Your task to perform on an android device: Open Yahoo.com Image 0: 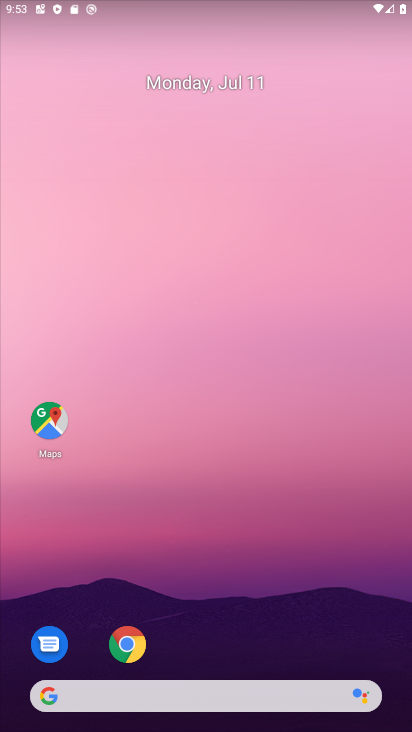
Step 0: press home button
Your task to perform on an android device: Open Yahoo.com Image 1: 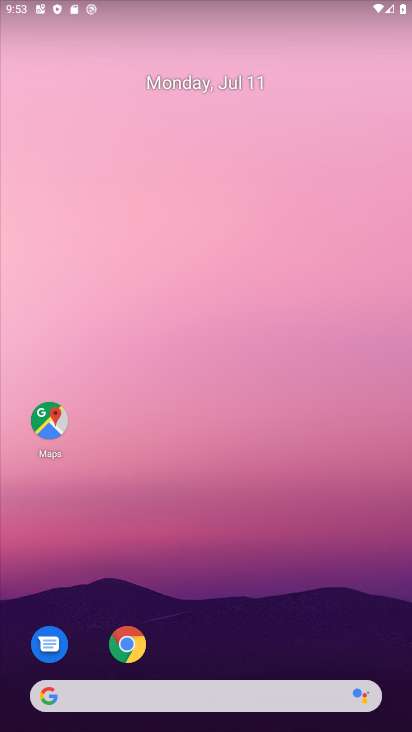
Step 1: click (123, 636)
Your task to perform on an android device: Open Yahoo.com Image 2: 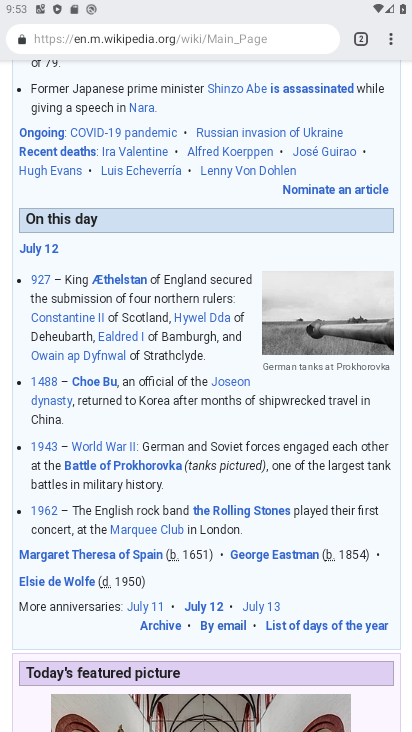
Step 2: click (358, 37)
Your task to perform on an android device: Open Yahoo.com Image 3: 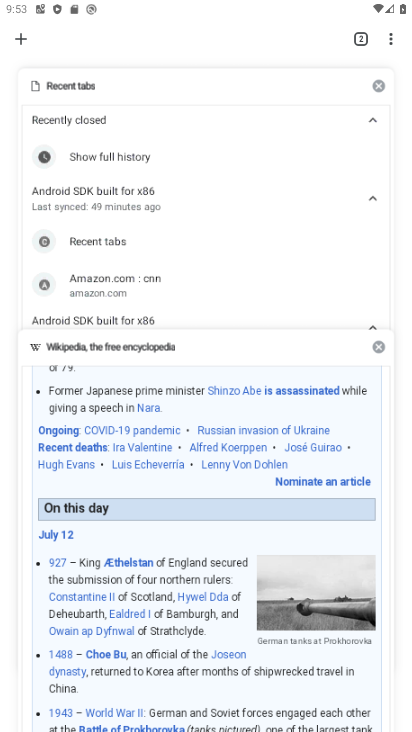
Step 3: click (381, 81)
Your task to perform on an android device: Open Yahoo.com Image 4: 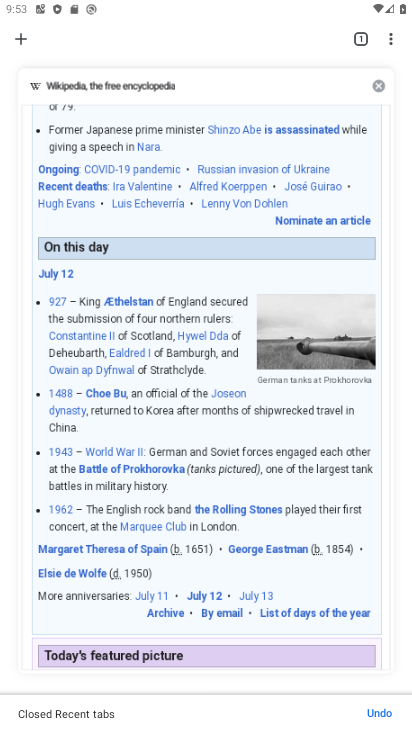
Step 4: click (380, 81)
Your task to perform on an android device: Open Yahoo.com Image 5: 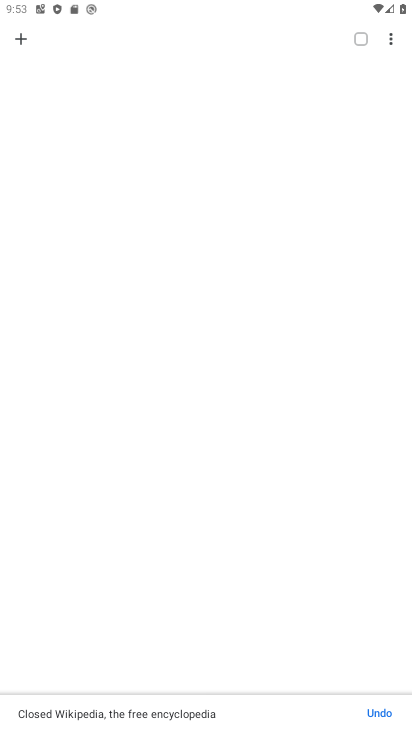
Step 5: click (22, 36)
Your task to perform on an android device: Open Yahoo.com Image 6: 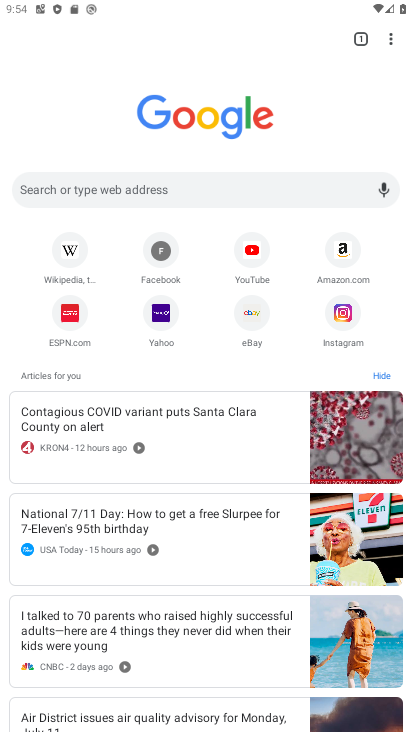
Step 6: click (158, 307)
Your task to perform on an android device: Open Yahoo.com Image 7: 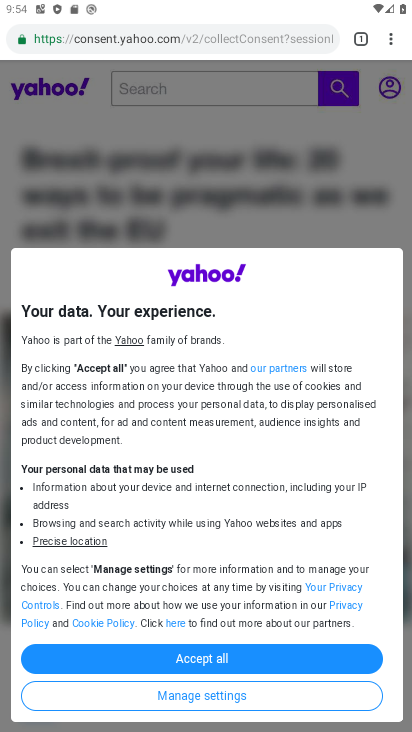
Step 7: click (214, 652)
Your task to perform on an android device: Open Yahoo.com Image 8: 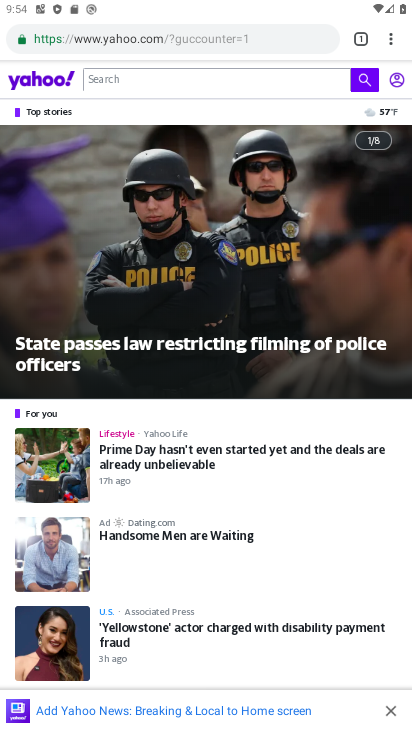
Step 8: task complete